Your task to perform on an android device: add a contact in the contacts app Image 0: 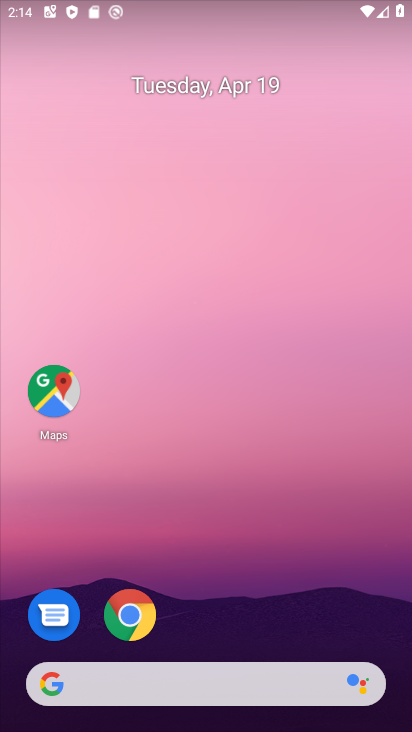
Step 0: drag from (204, 641) to (258, 160)
Your task to perform on an android device: add a contact in the contacts app Image 1: 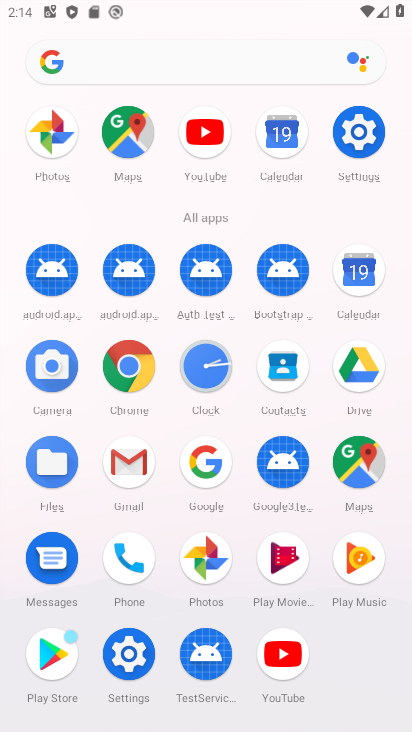
Step 1: click (289, 372)
Your task to perform on an android device: add a contact in the contacts app Image 2: 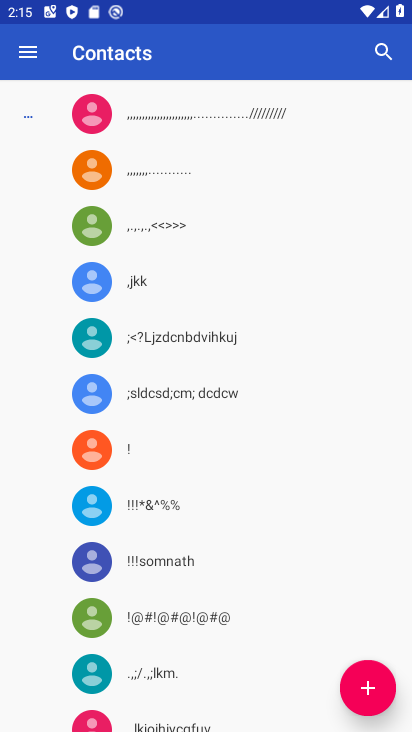
Step 2: click (370, 686)
Your task to perform on an android device: add a contact in the contacts app Image 3: 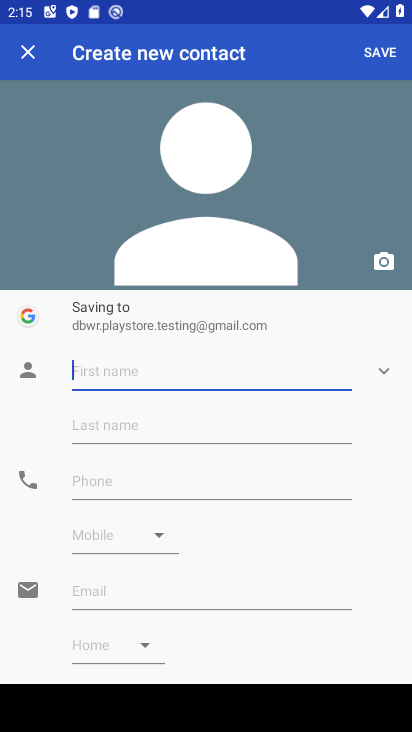
Step 3: type "pt"
Your task to perform on an android device: add a contact in the contacts app Image 4: 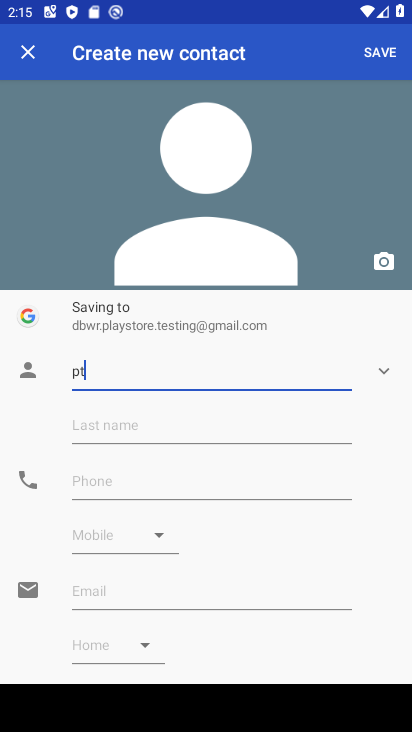
Step 4: click (106, 487)
Your task to perform on an android device: add a contact in the contacts app Image 5: 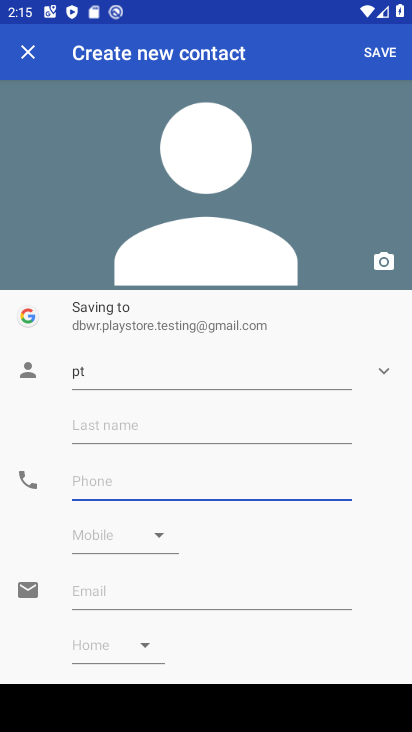
Step 5: type "7888696"
Your task to perform on an android device: add a contact in the contacts app Image 6: 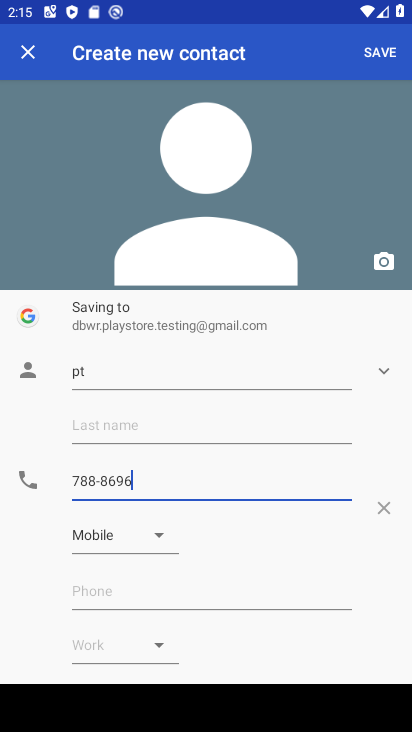
Step 6: click (385, 54)
Your task to perform on an android device: add a contact in the contacts app Image 7: 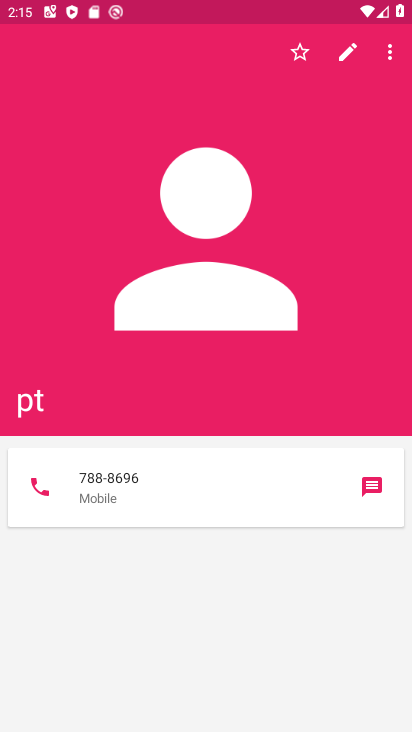
Step 7: task complete